Your task to perform on an android device: Go to Yahoo.com Image 0: 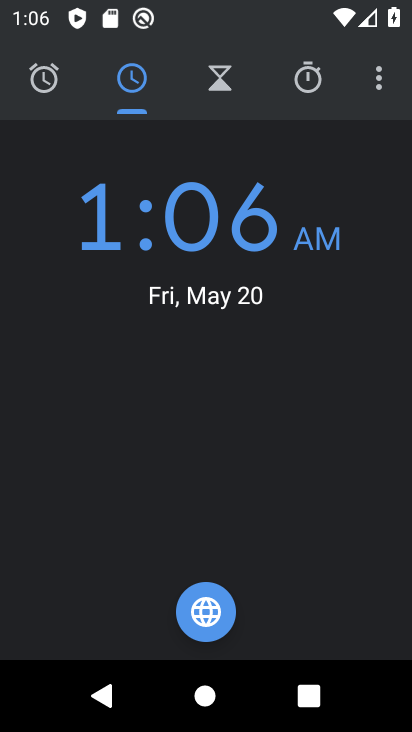
Step 0: press back button
Your task to perform on an android device: Go to Yahoo.com Image 1: 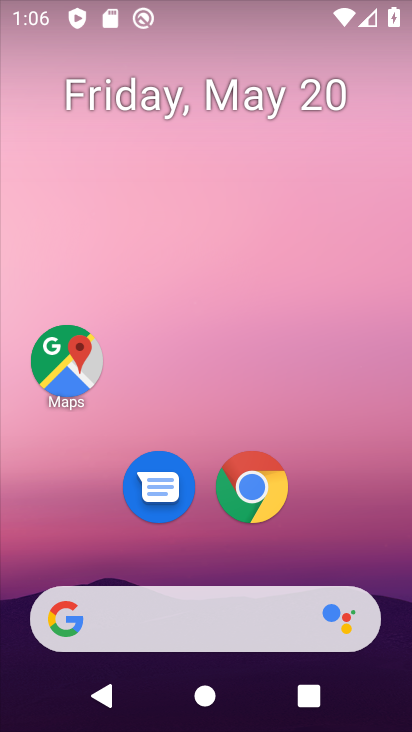
Step 1: click (251, 489)
Your task to perform on an android device: Go to Yahoo.com Image 2: 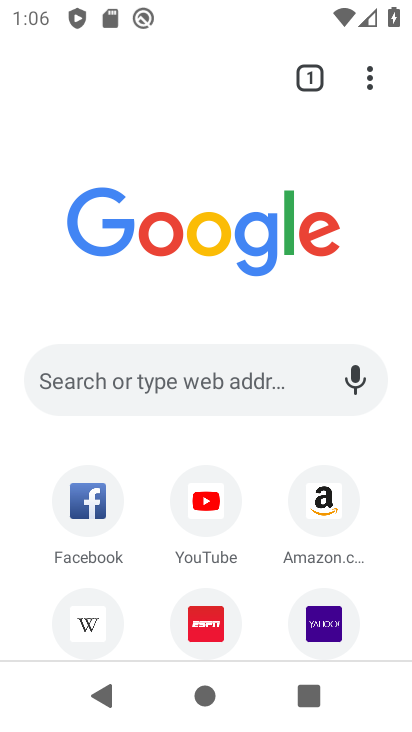
Step 2: click (214, 374)
Your task to perform on an android device: Go to Yahoo.com Image 3: 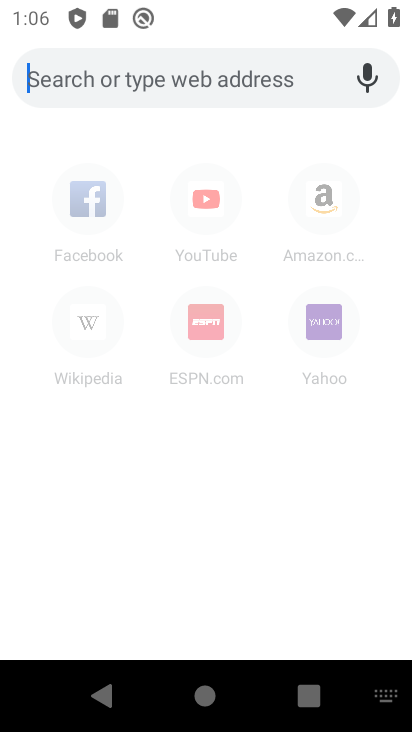
Step 3: click (330, 321)
Your task to perform on an android device: Go to Yahoo.com Image 4: 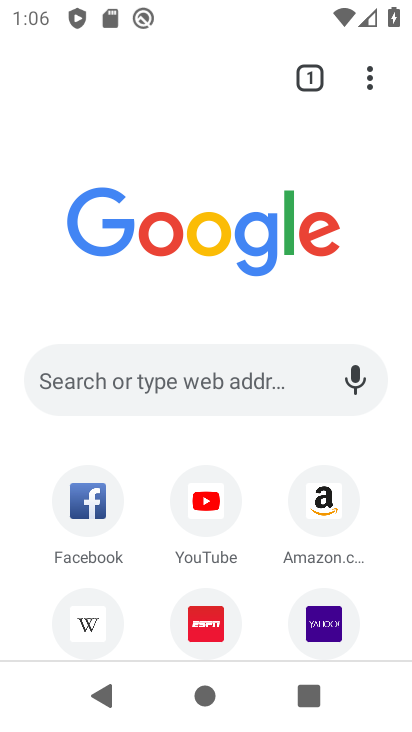
Step 4: click (321, 628)
Your task to perform on an android device: Go to Yahoo.com Image 5: 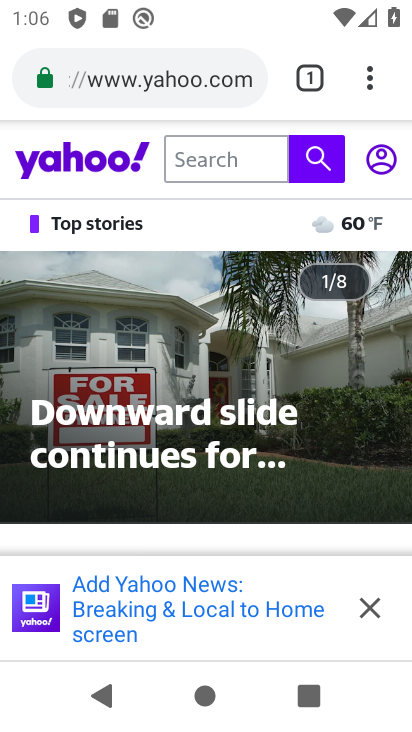
Step 5: task complete